Your task to perform on an android device: Clear the cart on ebay.com. Image 0: 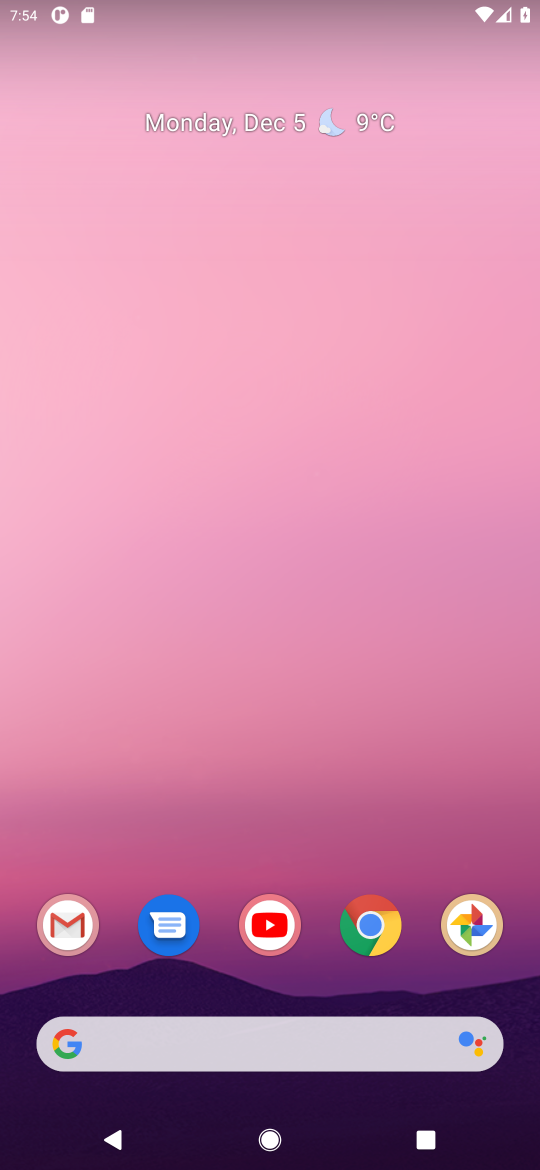
Step 0: click (354, 933)
Your task to perform on an android device: Clear the cart on ebay.com. Image 1: 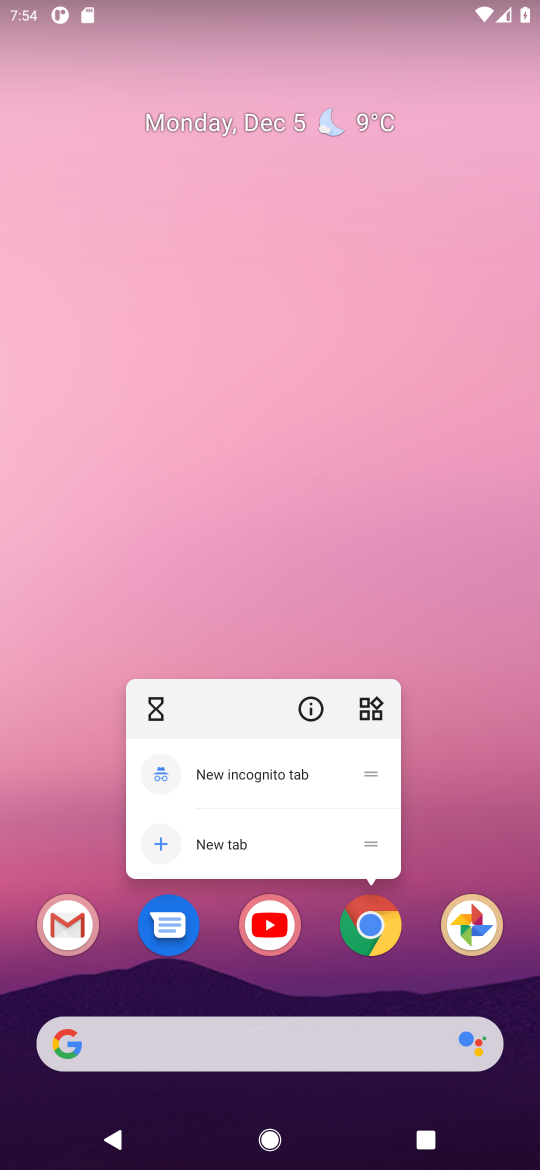
Step 1: click (376, 933)
Your task to perform on an android device: Clear the cart on ebay.com. Image 2: 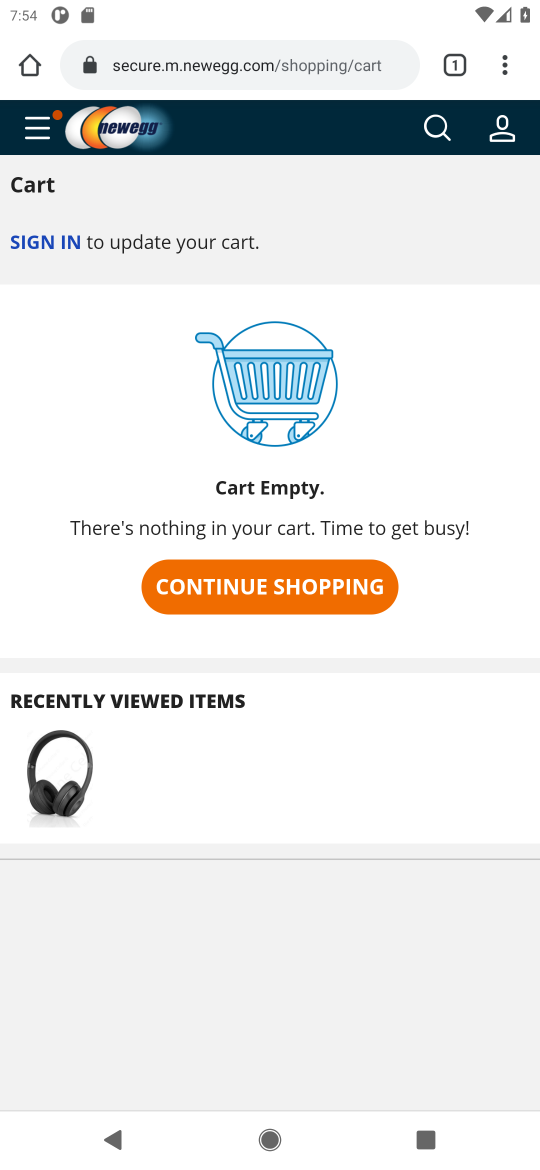
Step 2: click (155, 67)
Your task to perform on an android device: Clear the cart on ebay.com. Image 3: 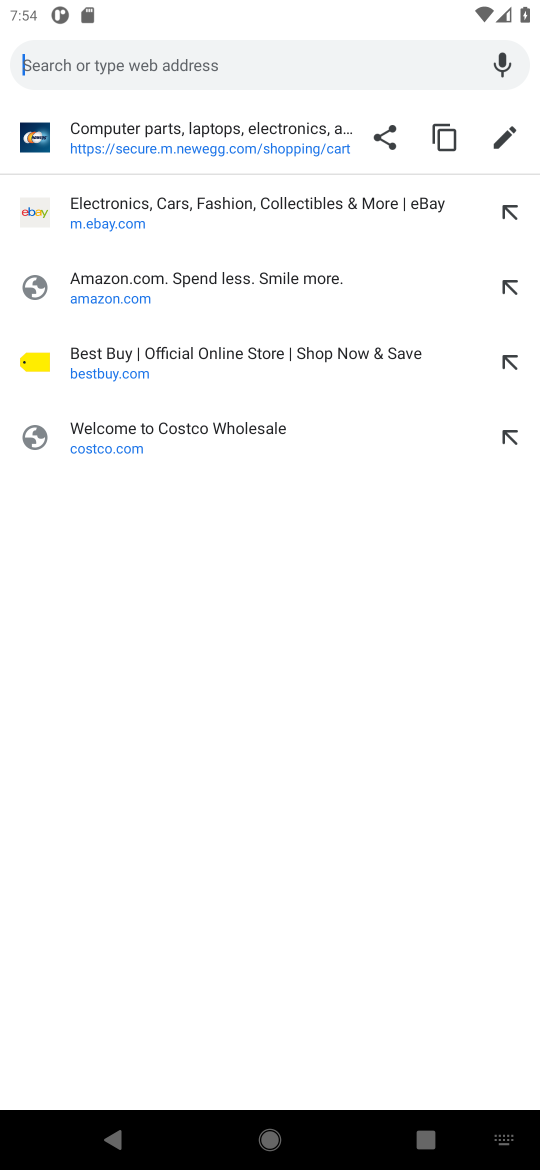
Step 3: click (97, 221)
Your task to perform on an android device: Clear the cart on ebay.com. Image 4: 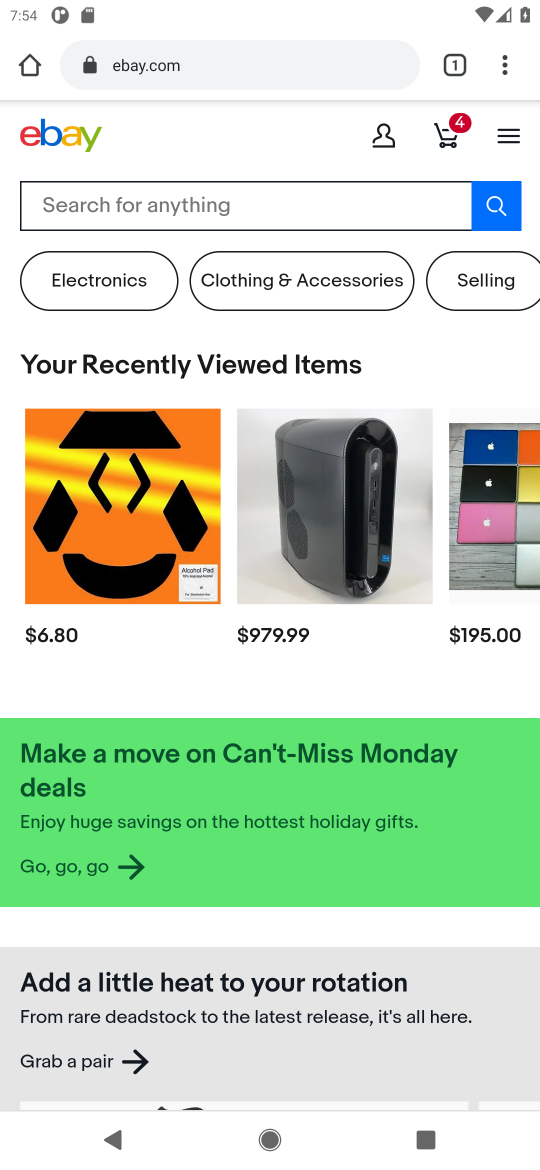
Step 4: click (447, 142)
Your task to perform on an android device: Clear the cart on ebay.com. Image 5: 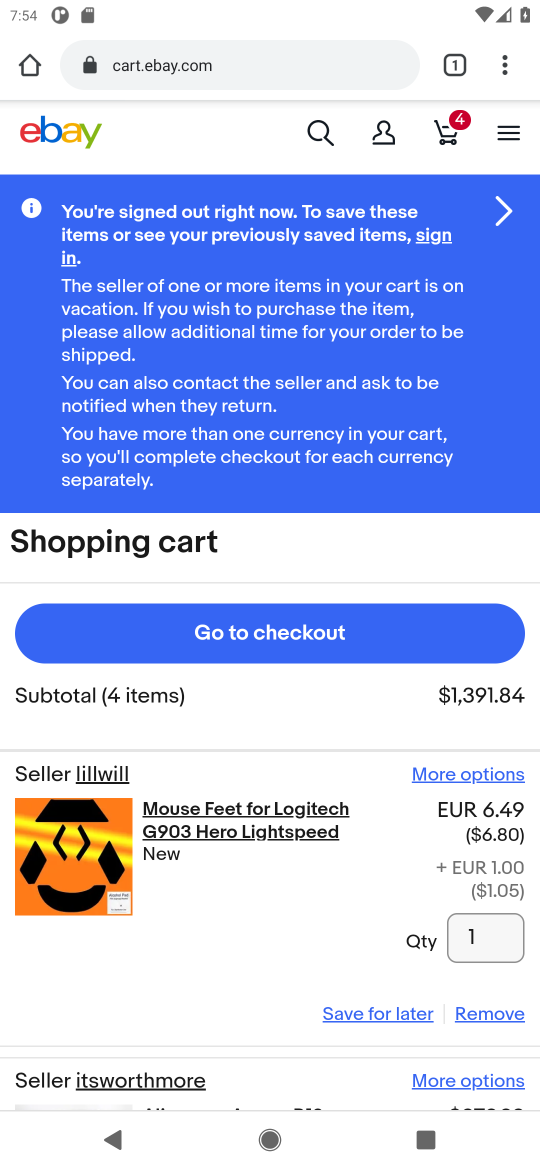
Step 5: click (471, 1015)
Your task to perform on an android device: Clear the cart on ebay.com. Image 6: 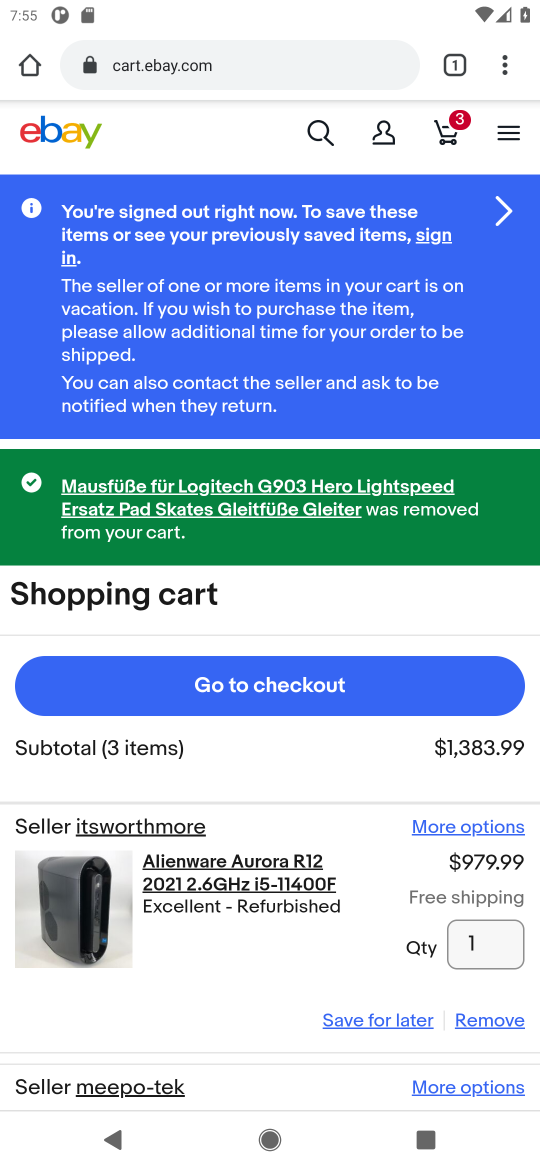
Step 6: click (471, 1015)
Your task to perform on an android device: Clear the cart on ebay.com. Image 7: 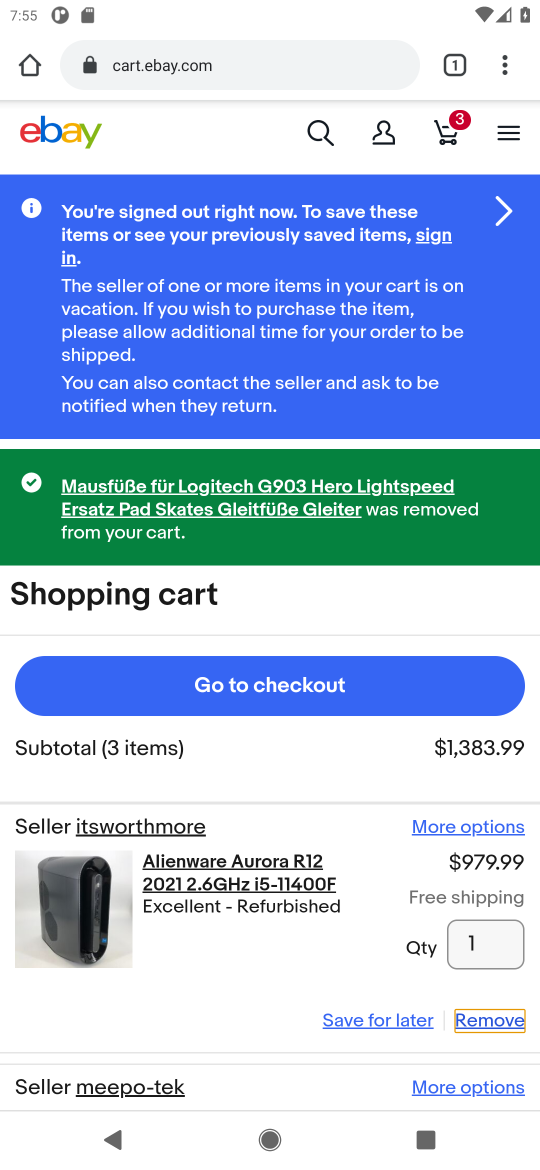
Step 7: click (472, 1023)
Your task to perform on an android device: Clear the cart on ebay.com. Image 8: 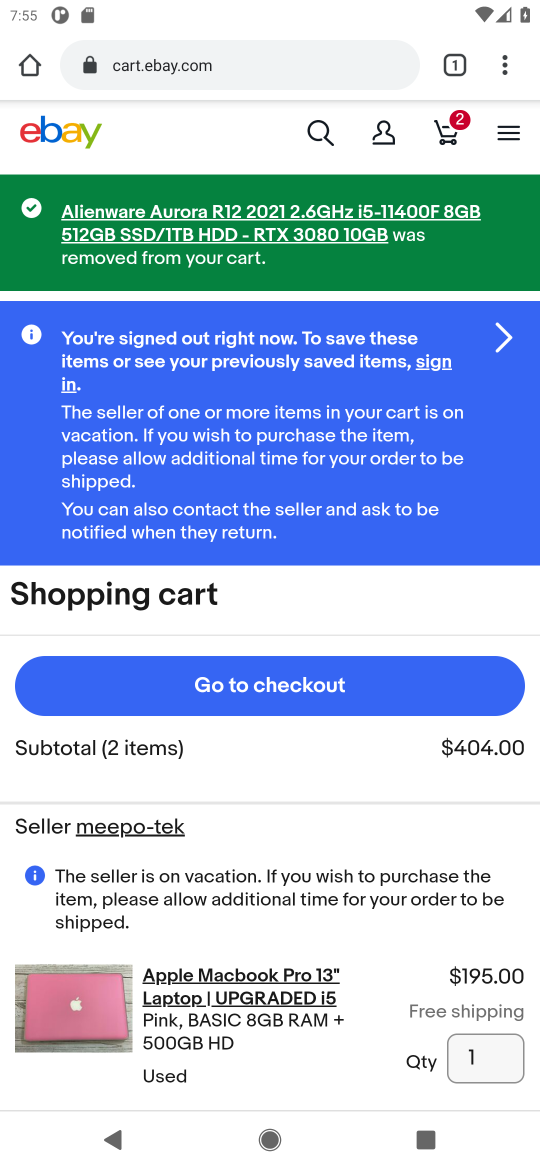
Step 8: drag from (288, 879) to (291, 588)
Your task to perform on an android device: Clear the cart on ebay.com. Image 9: 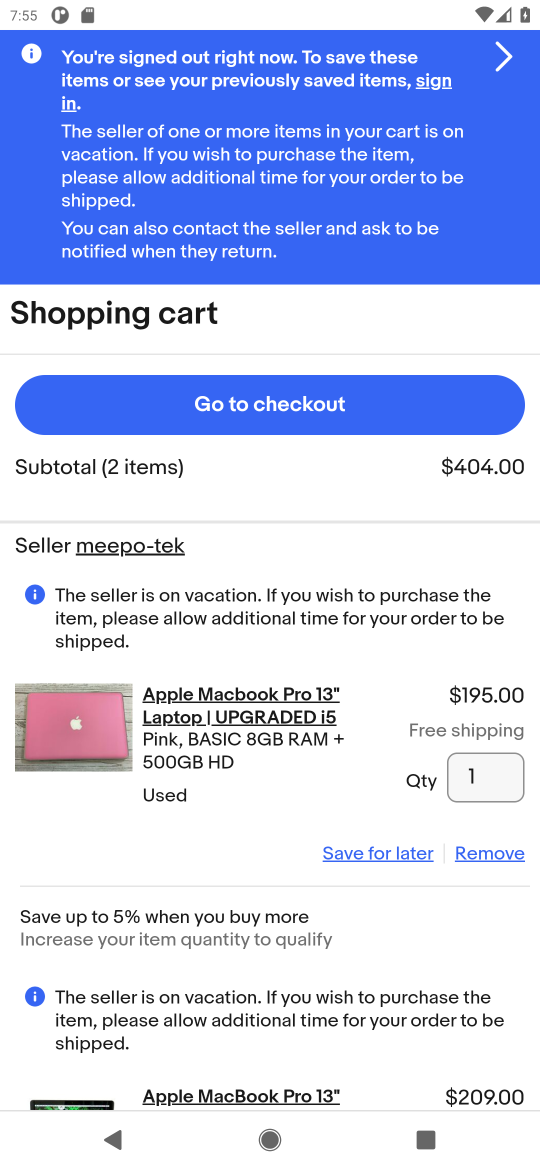
Step 9: drag from (279, 933) to (276, 666)
Your task to perform on an android device: Clear the cart on ebay.com. Image 10: 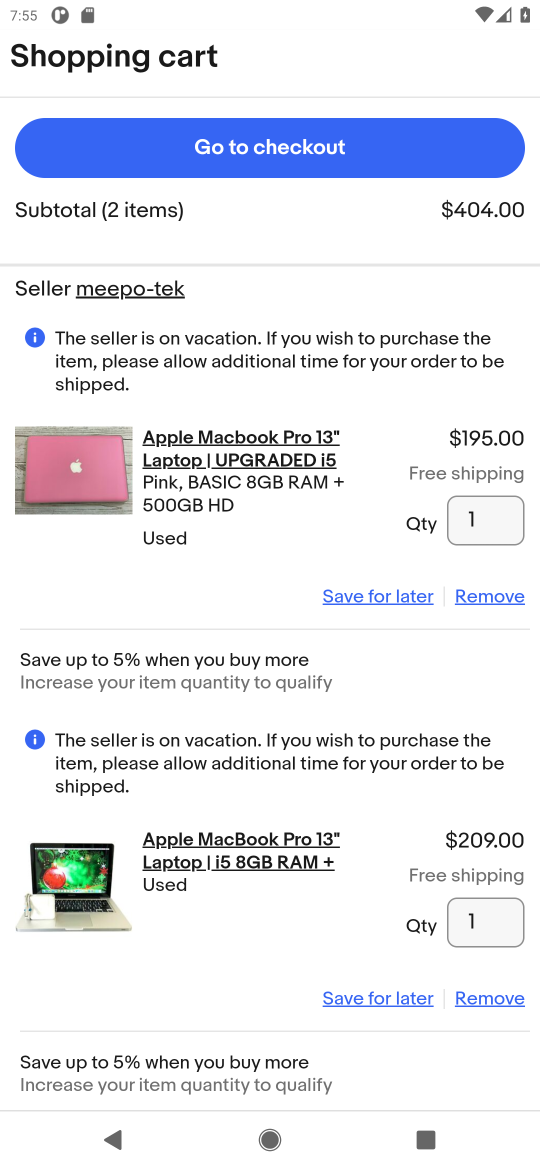
Step 10: click (476, 1002)
Your task to perform on an android device: Clear the cart on ebay.com. Image 11: 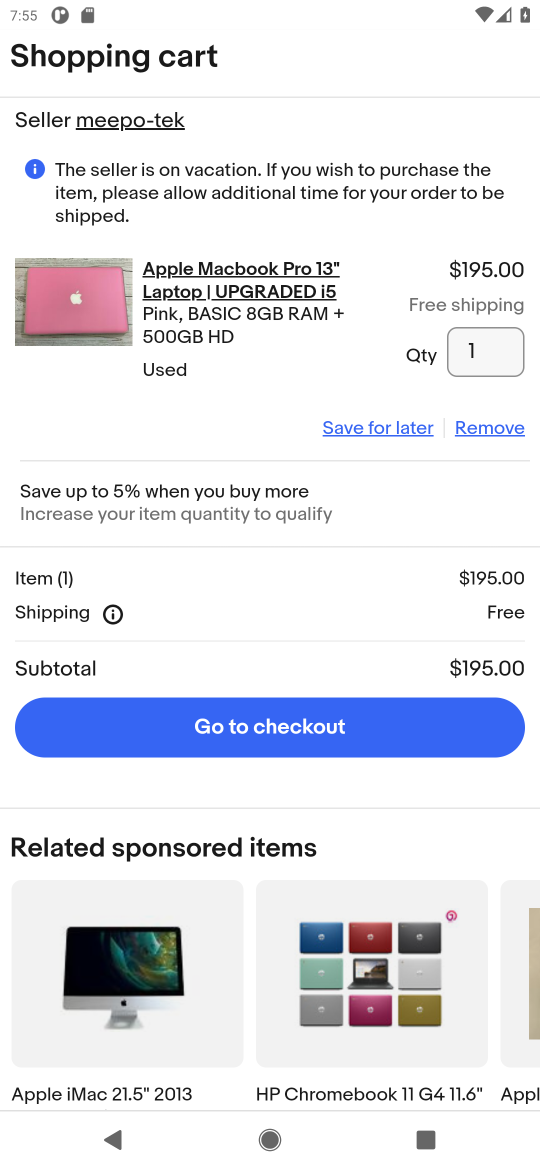
Step 11: click (486, 428)
Your task to perform on an android device: Clear the cart on ebay.com. Image 12: 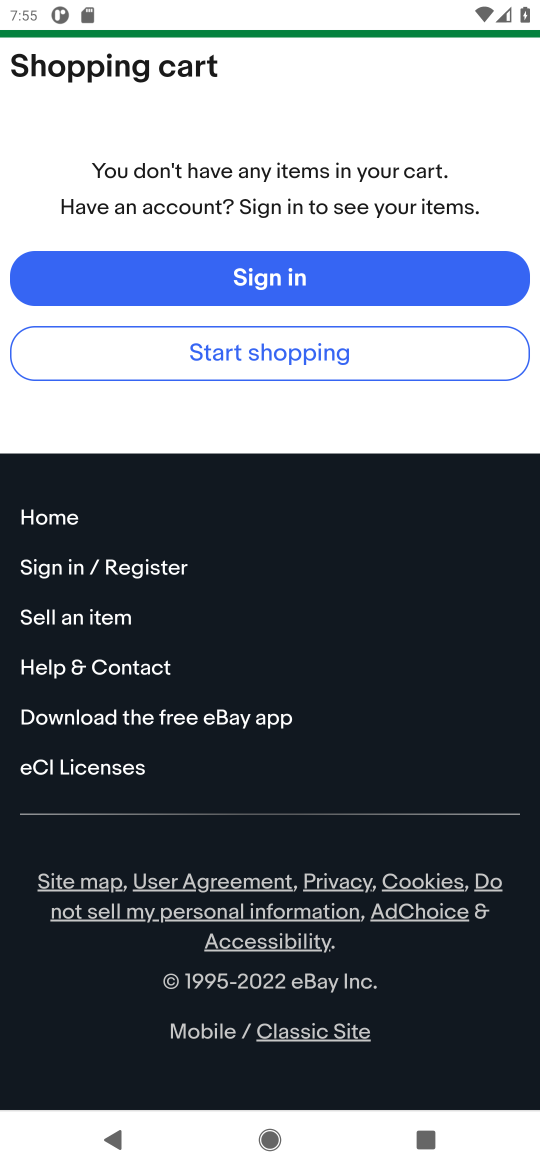
Step 12: task complete